Your task to perform on an android device: open app "Microsoft Outlook" Image 0: 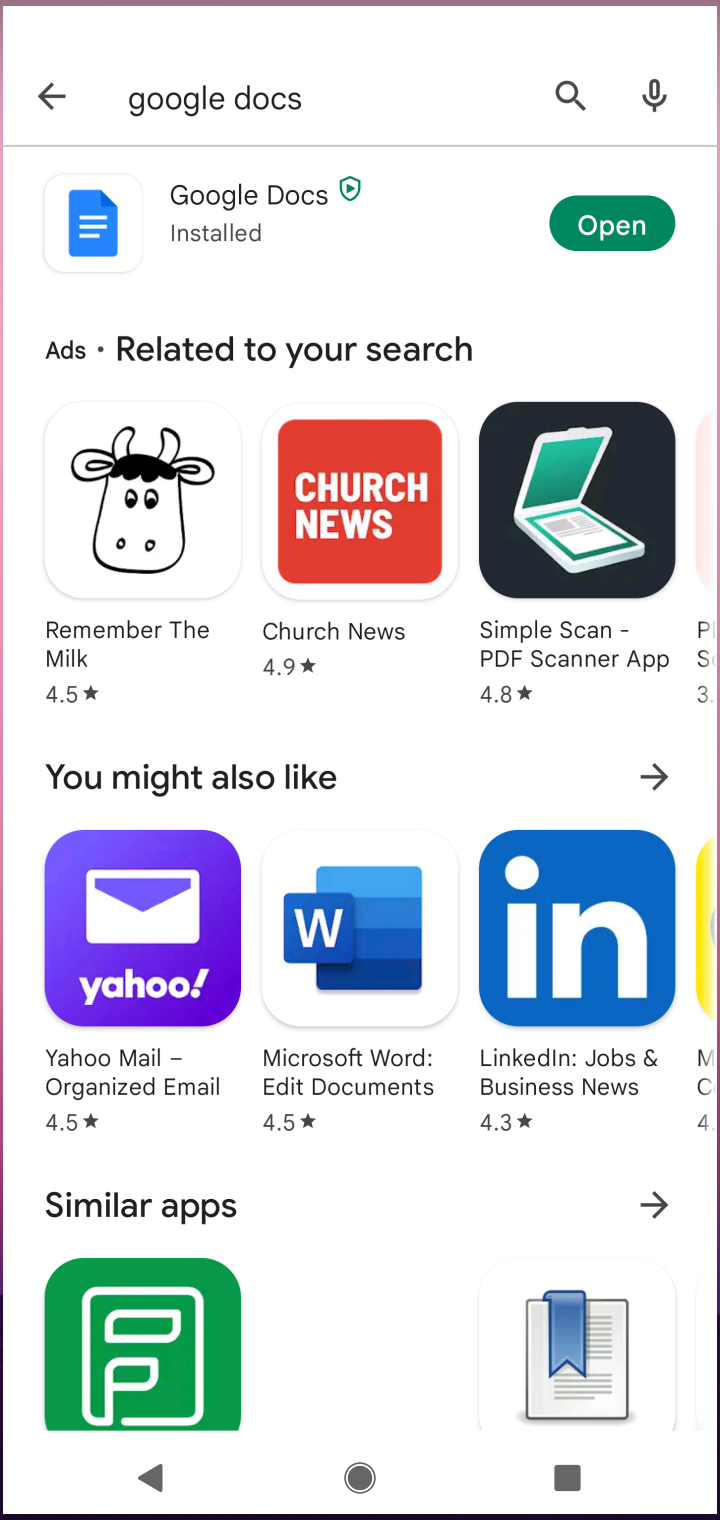
Step 0: press home button
Your task to perform on an android device: open app "Microsoft Outlook" Image 1: 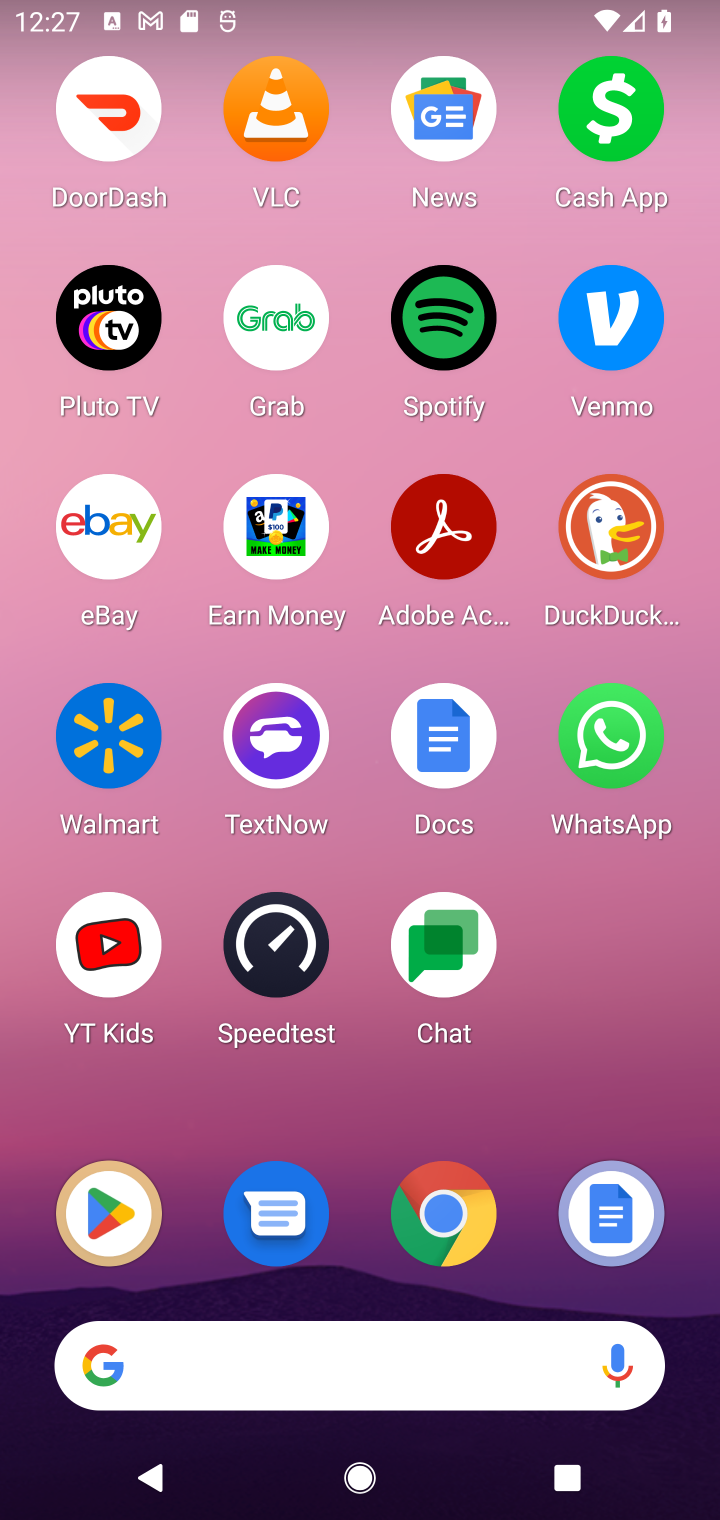
Step 1: click (76, 1242)
Your task to perform on an android device: open app "Microsoft Outlook" Image 2: 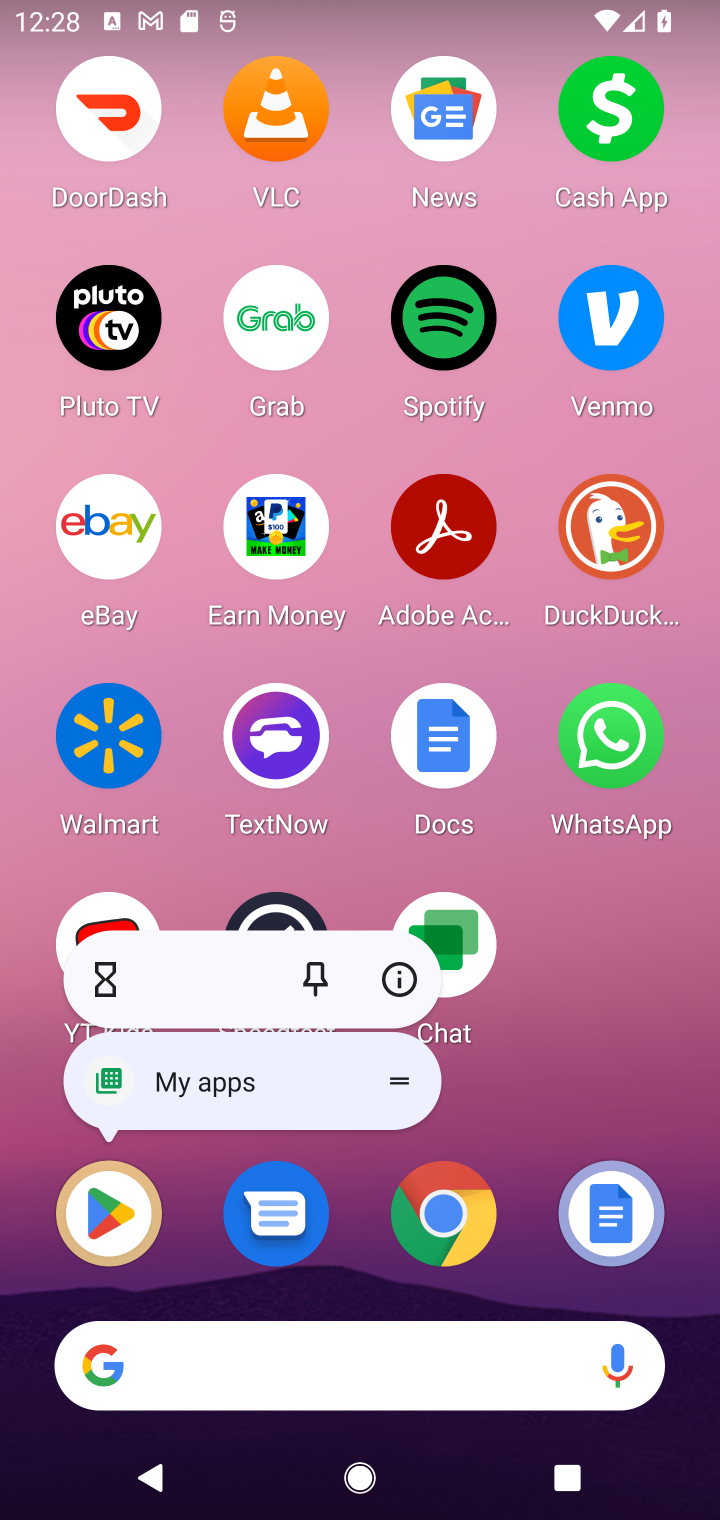
Step 2: click (103, 1213)
Your task to perform on an android device: open app "Microsoft Outlook" Image 3: 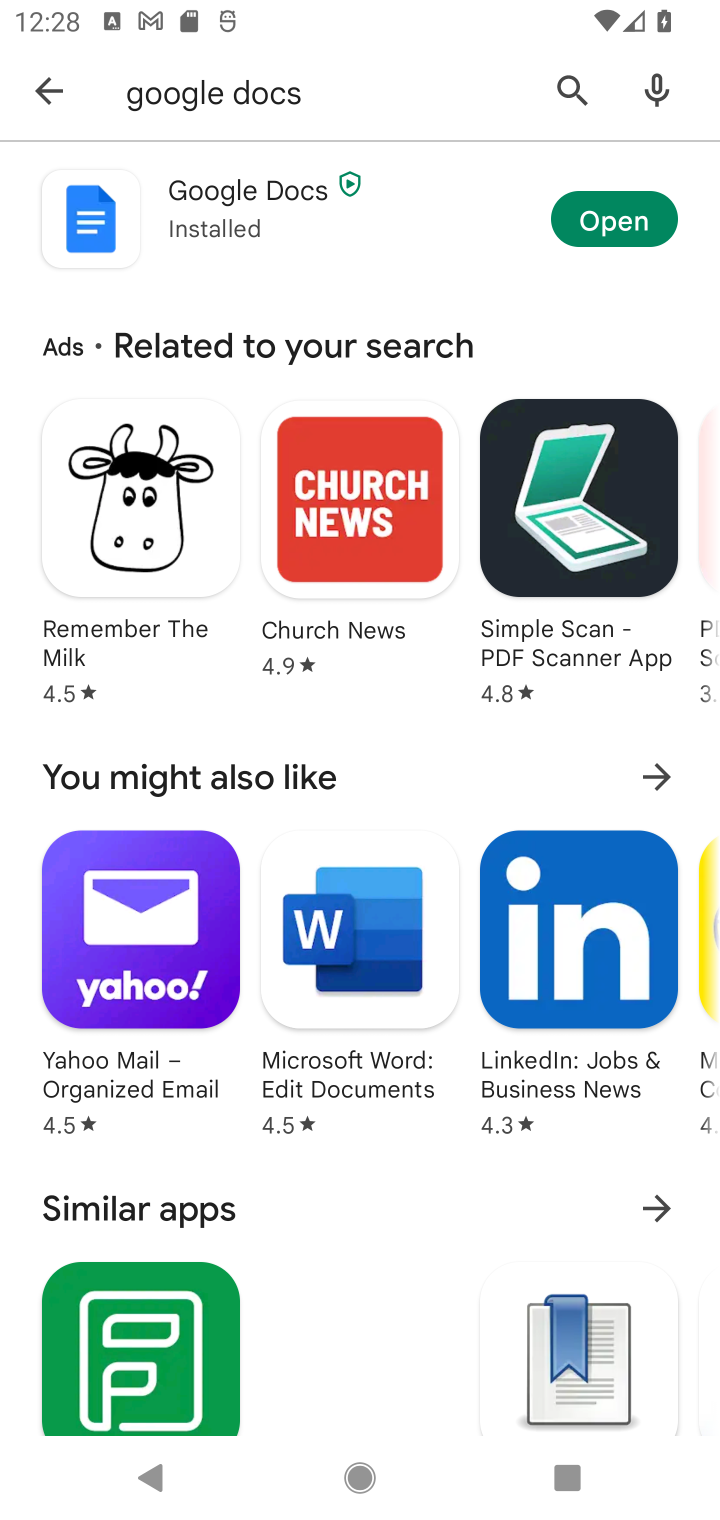
Step 3: click (55, 98)
Your task to perform on an android device: open app "Microsoft Outlook" Image 4: 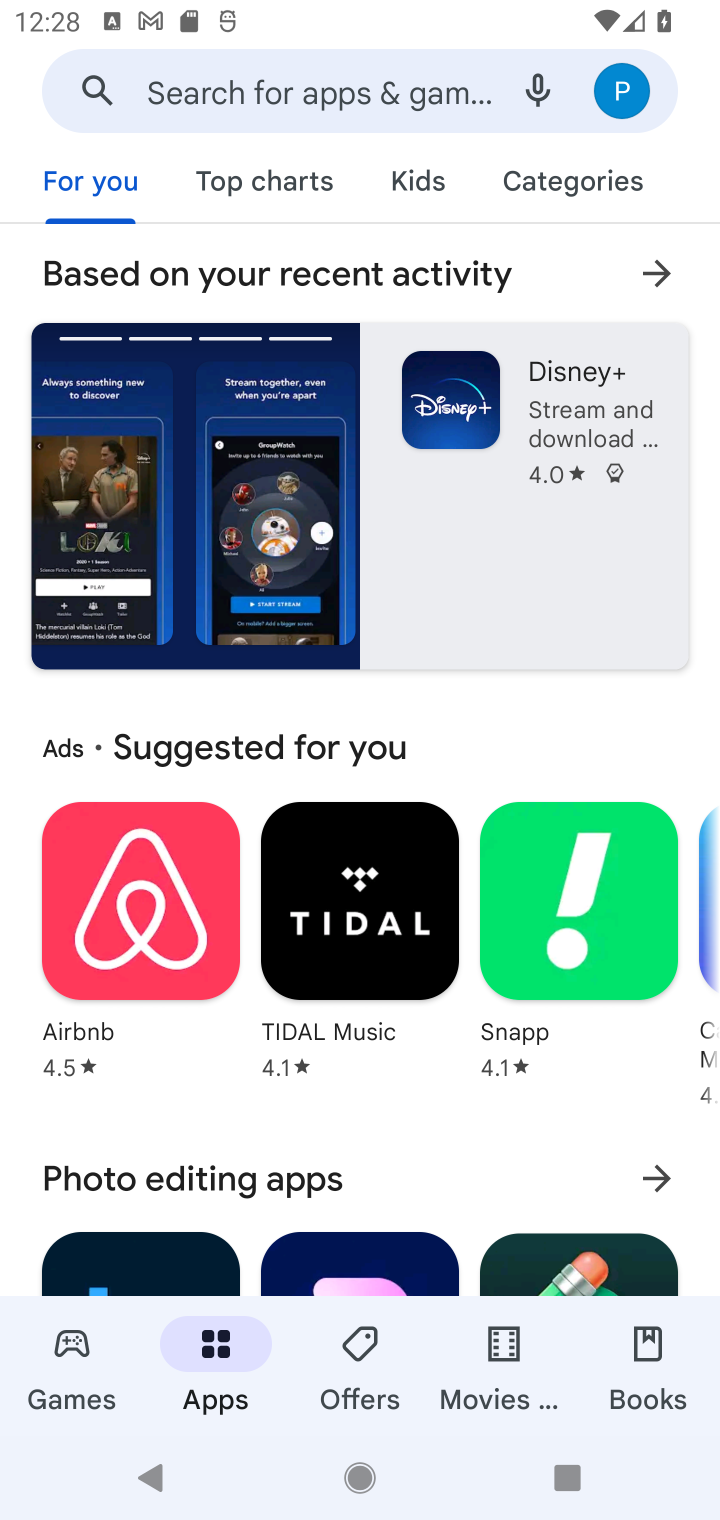
Step 4: click (234, 93)
Your task to perform on an android device: open app "Microsoft Outlook" Image 5: 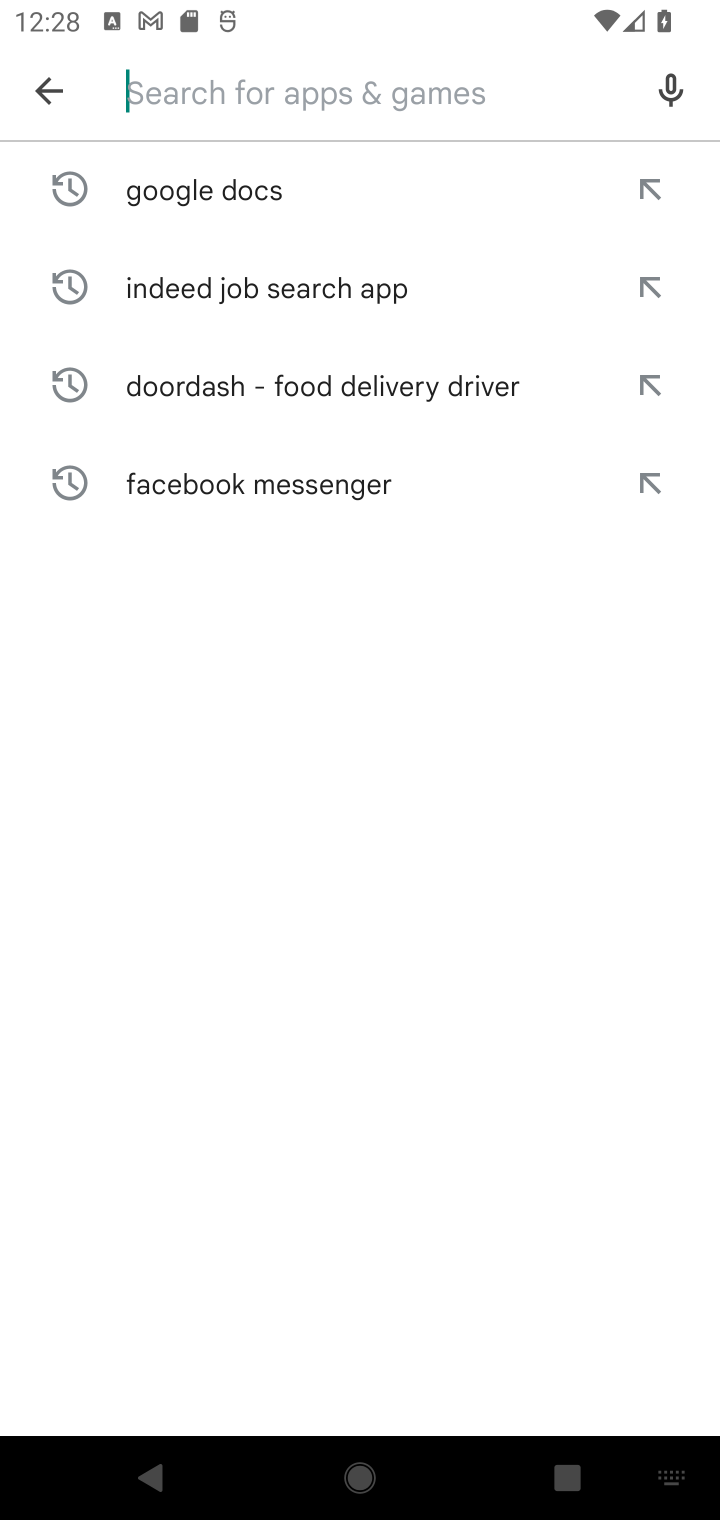
Step 5: type "Microsoft Outlook"
Your task to perform on an android device: open app "Microsoft Outlook" Image 6: 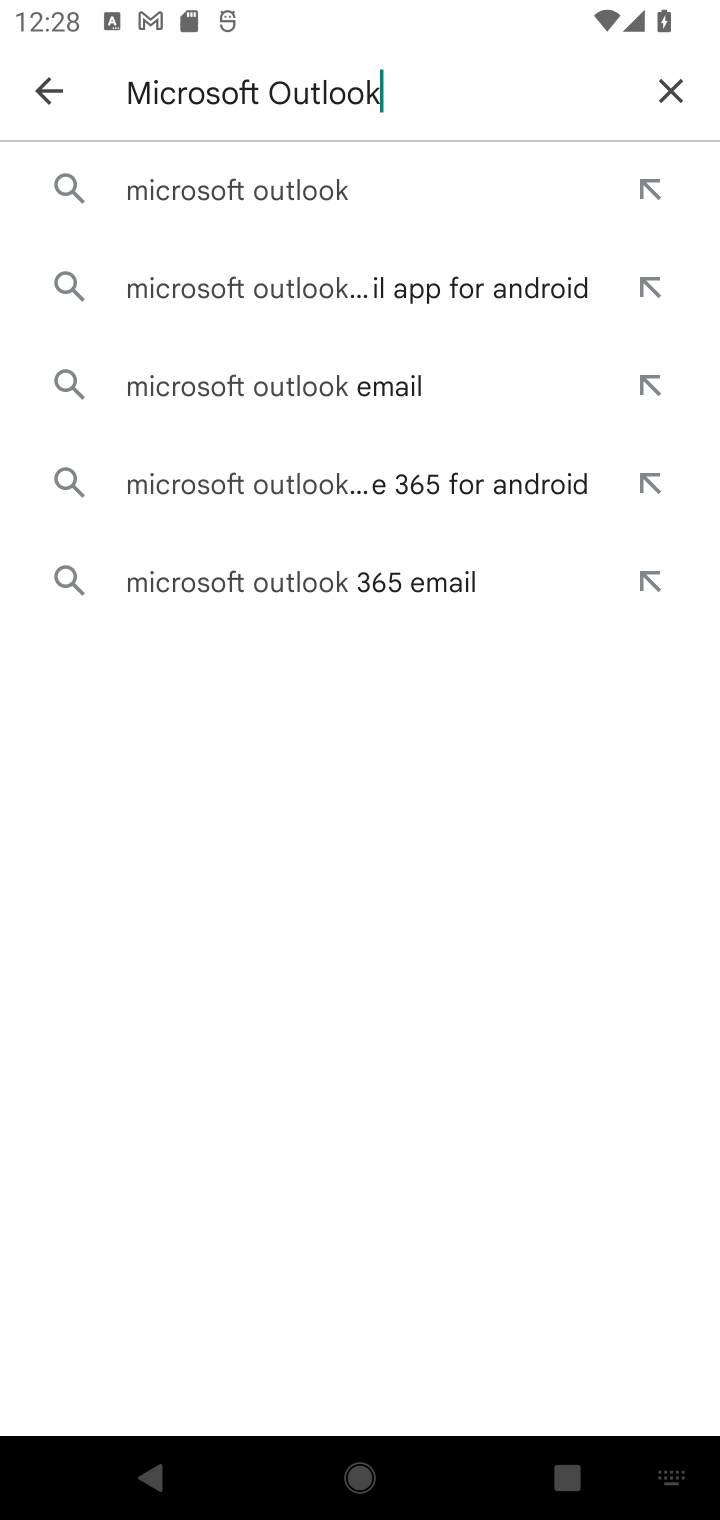
Step 6: click (327, 188)
Your task to perform on an android device: open app "Microsoft Outlook" Image 7: 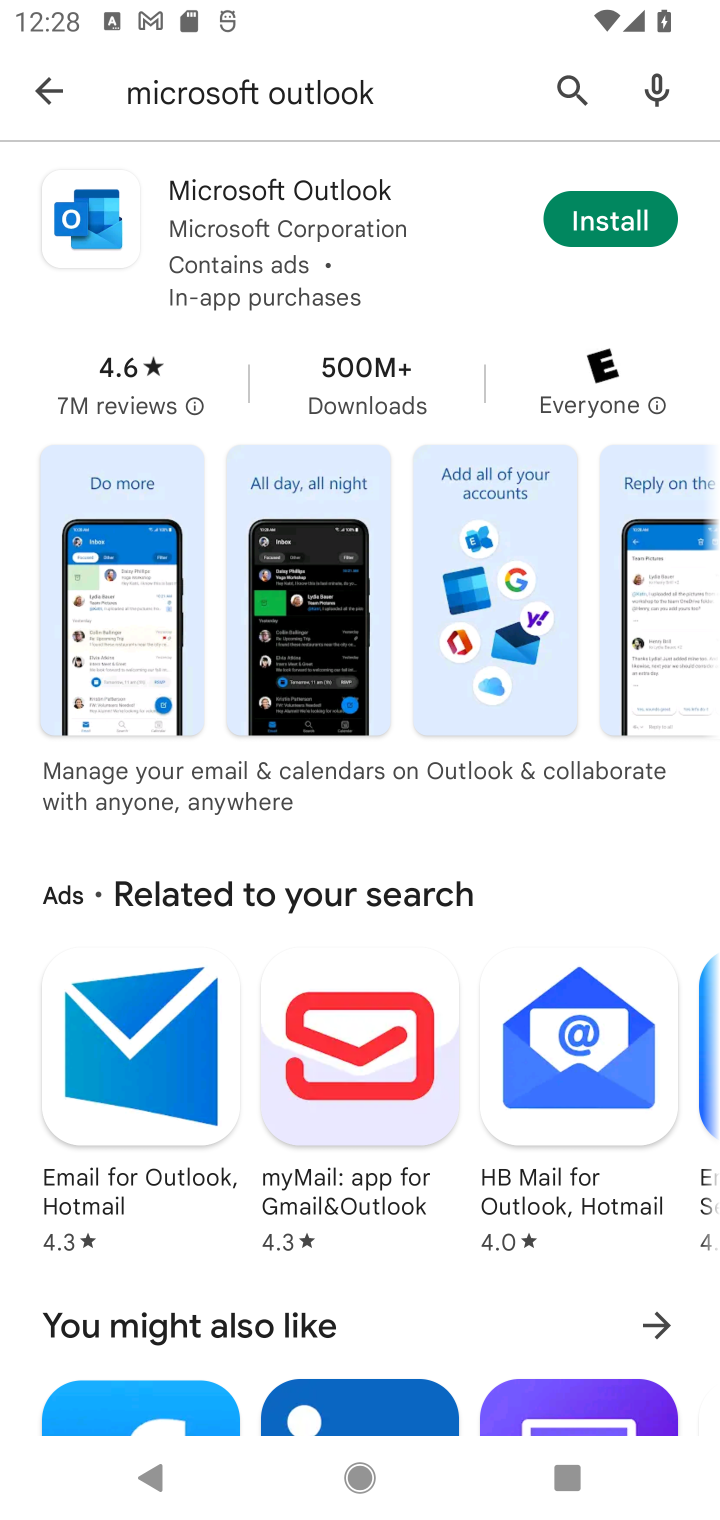
Step 7: click (593, 210)
Your task to perform on an android device: open app "Microsoft Outlook" Image 8: 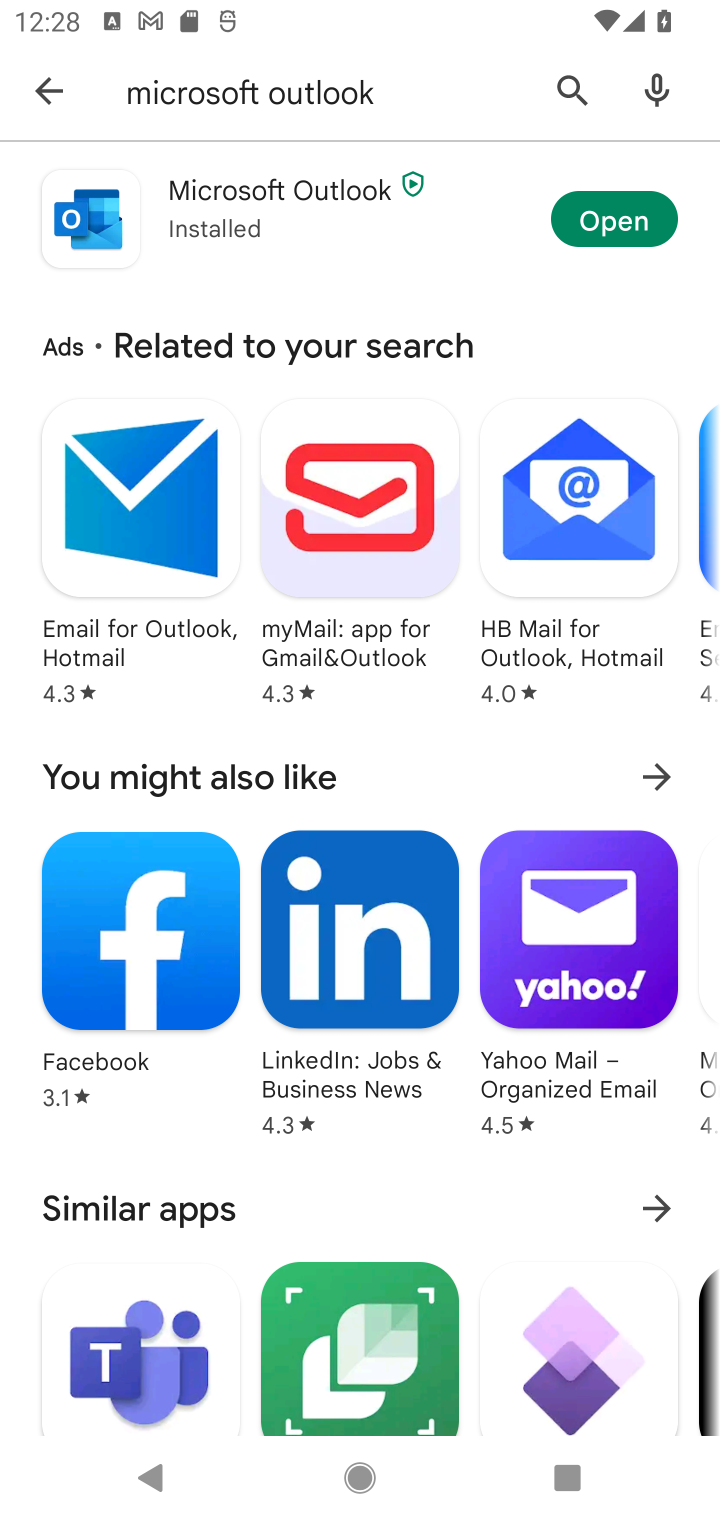
Step 8: click (588, 232)
Your task to perform on an android device: open app "Microsoft Outlook" Image 9: 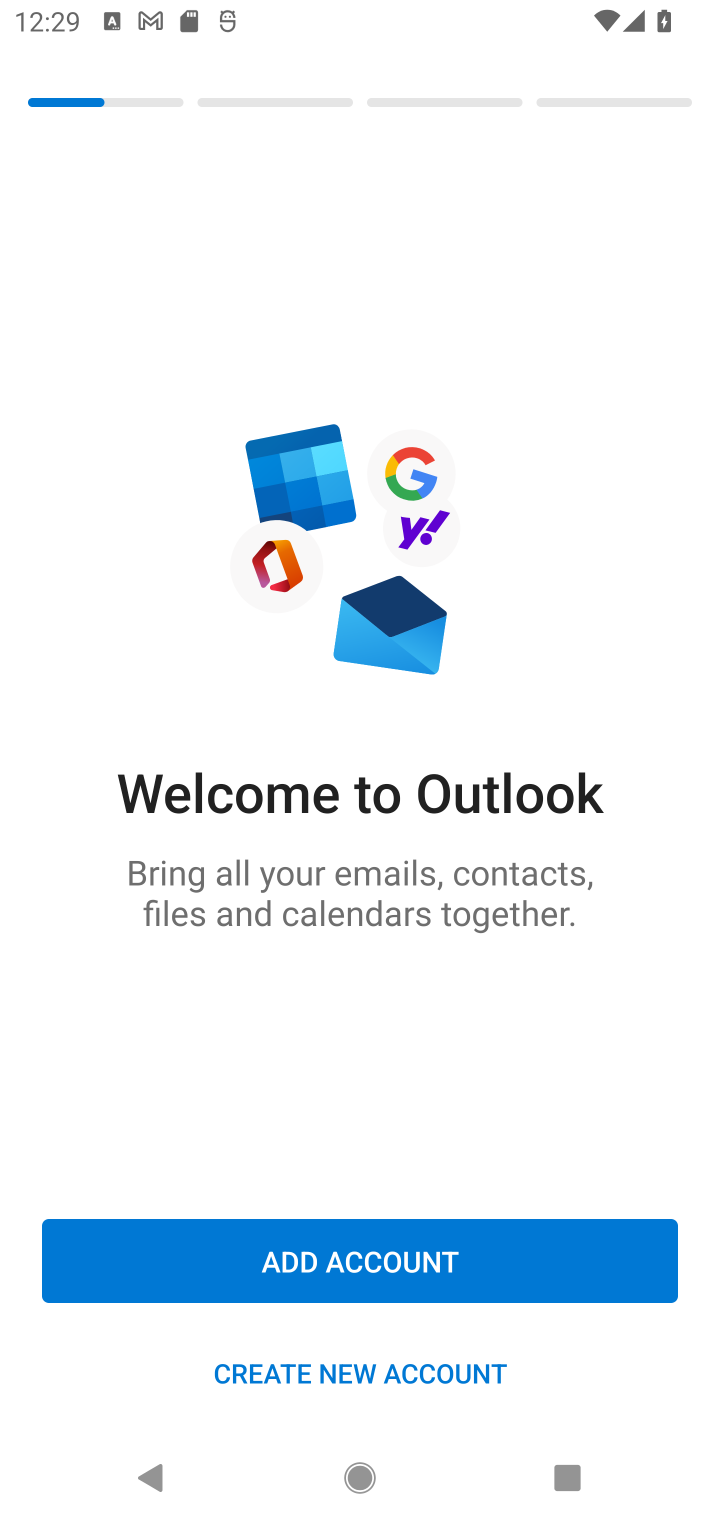
Step 9: task complete